Your task to perform on an android device: turn on location history Image 0: 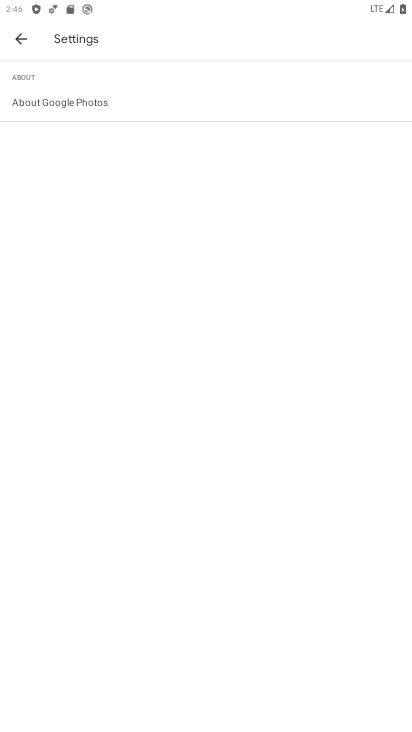
Step 0: press home button
Your task to perform on an android device: turn on location history Image 1: 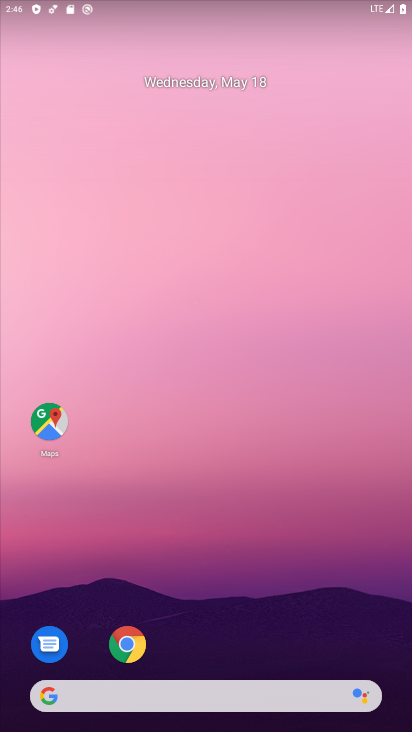
Step 1: drag from (202, 685) to (243, 192)
Your task to perform on an android device: turn on location history Image 2: 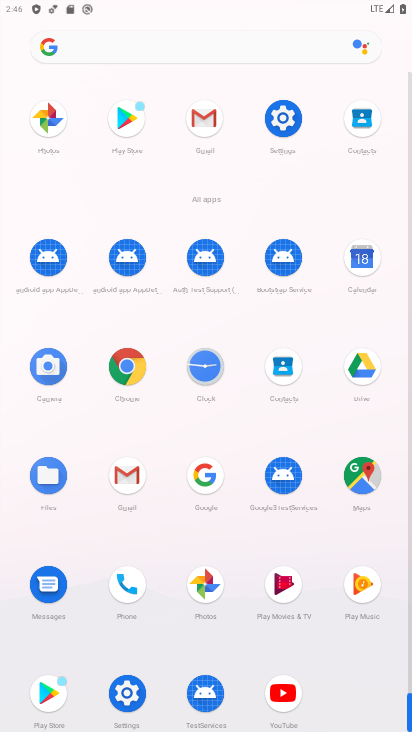
Step 2: click (276, 122)
Your task to perform on an android device: turn on location history Image 3: 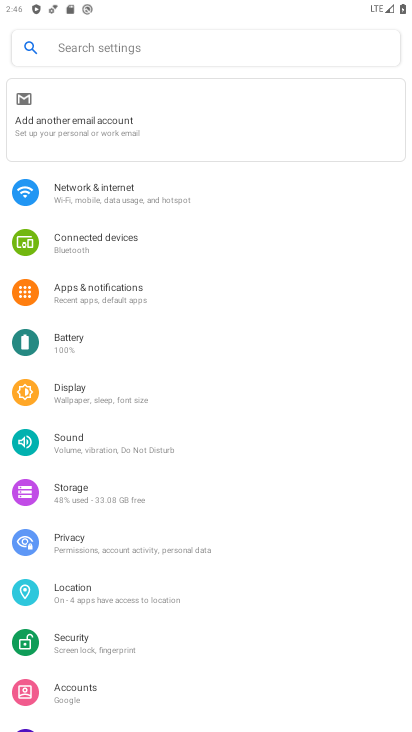
Step 3: click (75, 597)
Your task to perform on an android device: turn on location history Image 4: 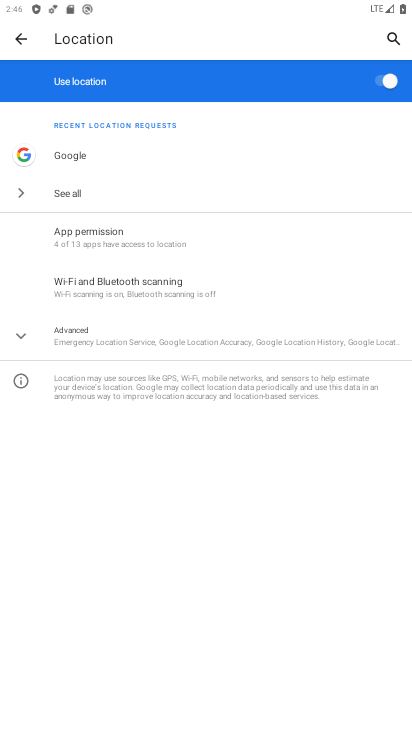
Step 4: click (62, 325)
Your task to perform on an android device: turn on location history Image 5: 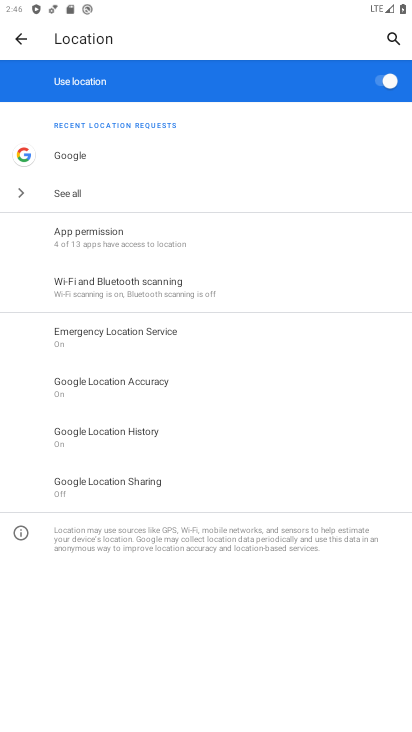
Step 5: click (98, 428)
Your task to perform on an android device: turn on location history Image 6: 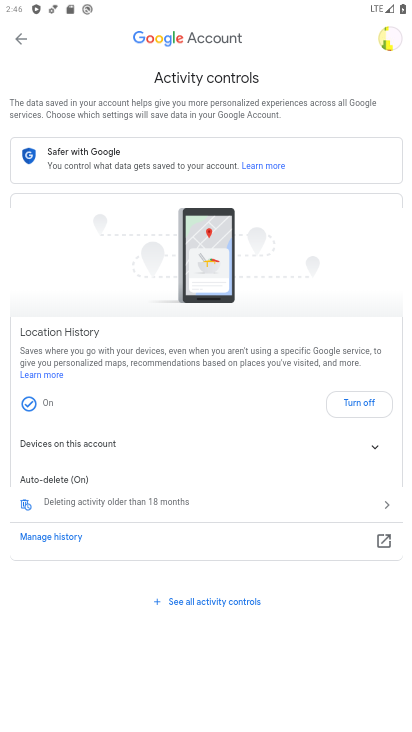
Step 6: task complete